Your task to perform on an android device: Open Reddit.com Image 0: 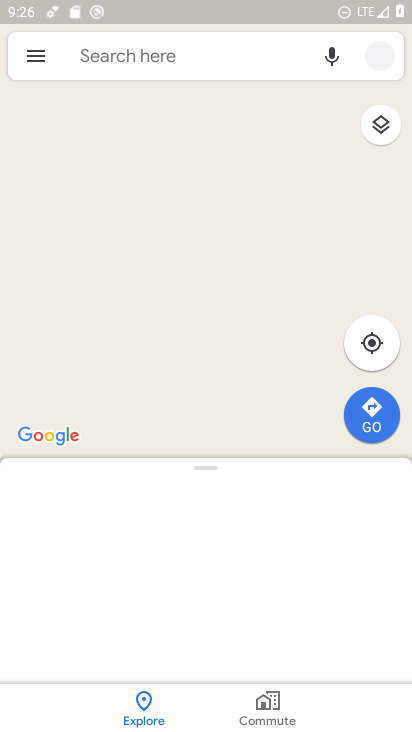
Step 0: press home button
Your task to perform on an android device: Open Reddit.com Image 1: 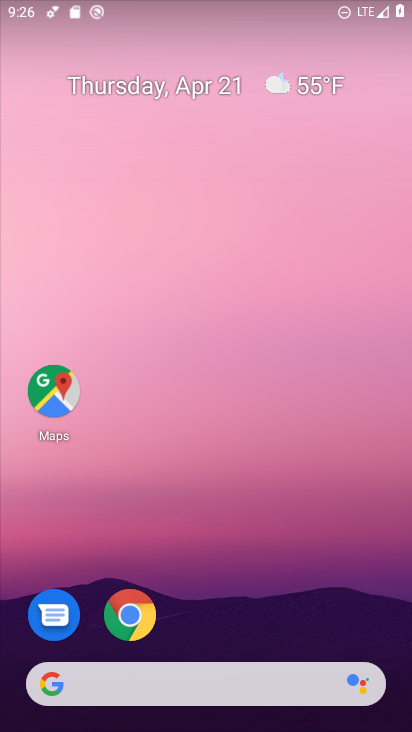
Step 1: click (135, 626)
Your task to perform on an android device: Open Reddit.com Image 2: 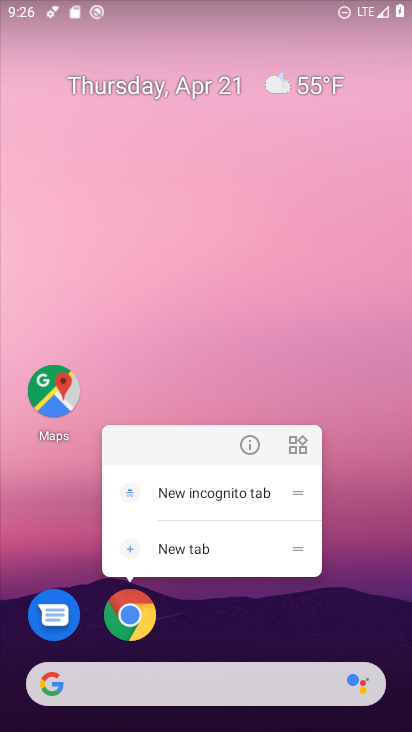
Step 2: click (135, 625)
Your task to perform on an android device: Open Reddit.com Image 3: 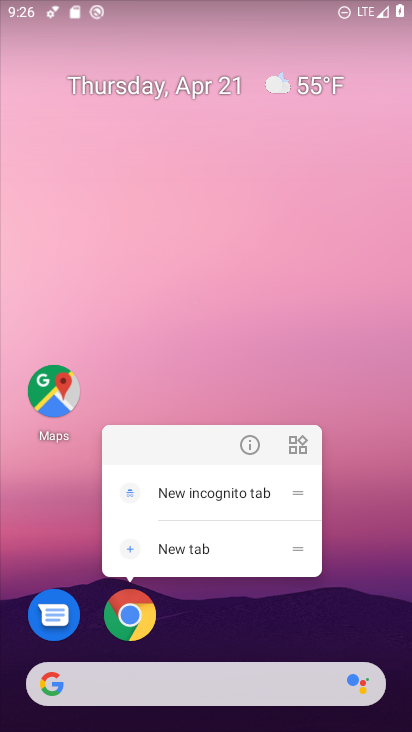
Step 3: click (135, 625)
Your task to perform on an android device: Open Reddit.com Image 4: 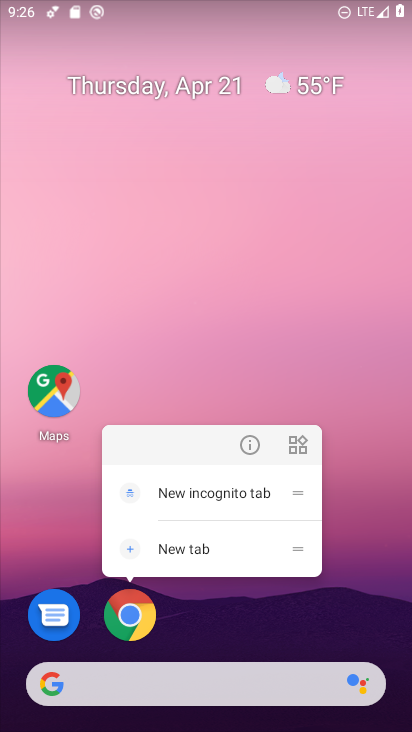
Step 4: click (135, 625)
Your task to perform on an android device: Open Reddit.com Image 5: 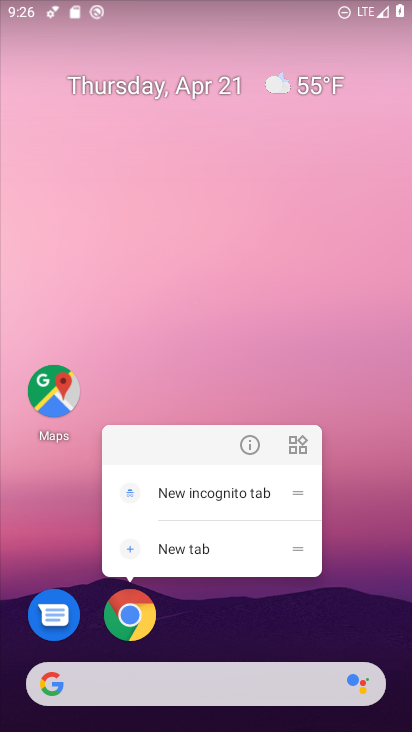
Step 5: click (135, 625)
Your task to perform on an android device: Open Reddit.com Image 6: 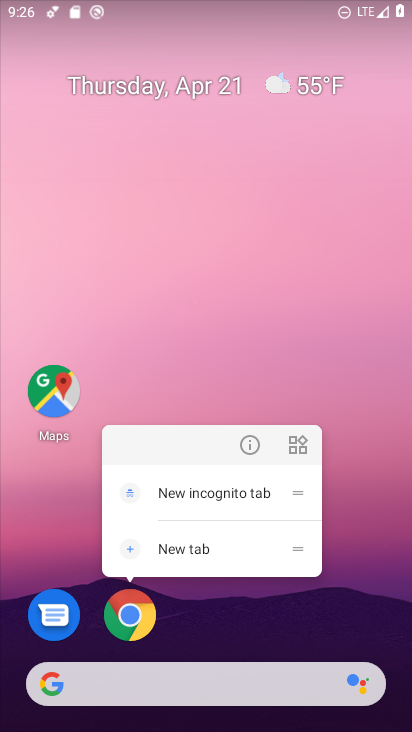
Step 6: click (135, 625)
Your task to perform on an android device: Open Reddit.com Image 7: 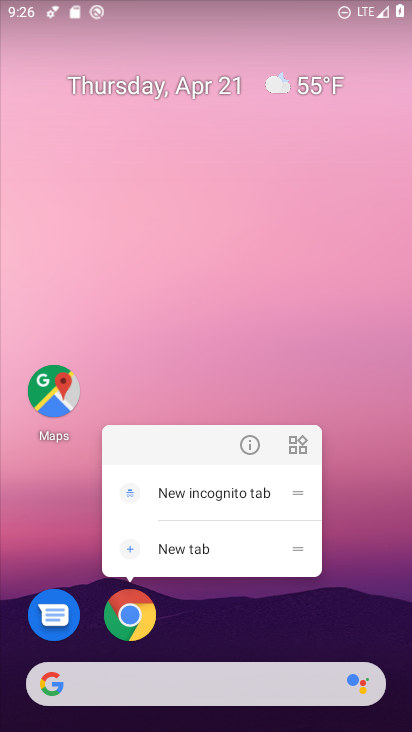
Step 7: click (135, 625)
Your task to perform on an android device: Open Reddit.com Image 8: 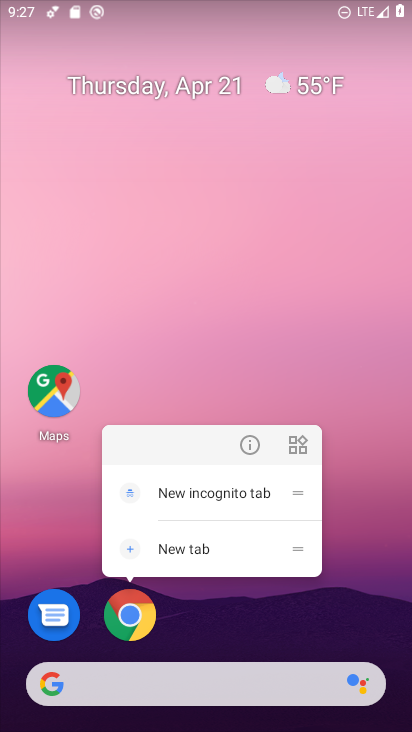
Step 8: click (135, 625)
Your task to perform on an android device: Open Reddit.com Image 9: 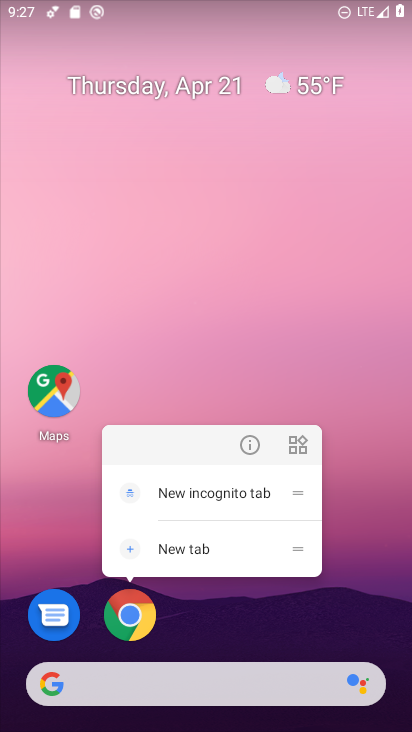
Step 9: click (126, 607)
Your task to perform on an android device: Open Reddit.com Image 10: 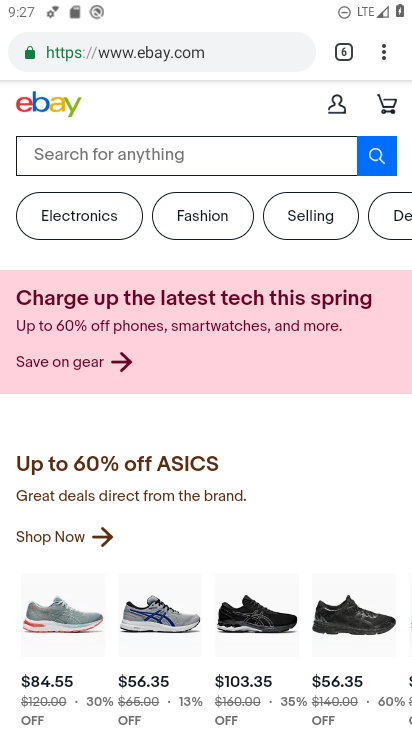
Step 10: drag from (385, 52) to (183, 111)
Your task to perform on an android device: Open Reddit.com Image 11: 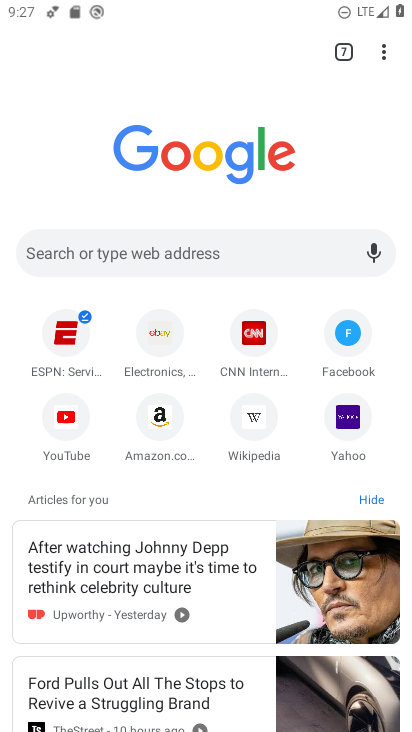
Step 11: click (141, 256)
Your task to perform on an android device: Open Reddit.com Image 12: 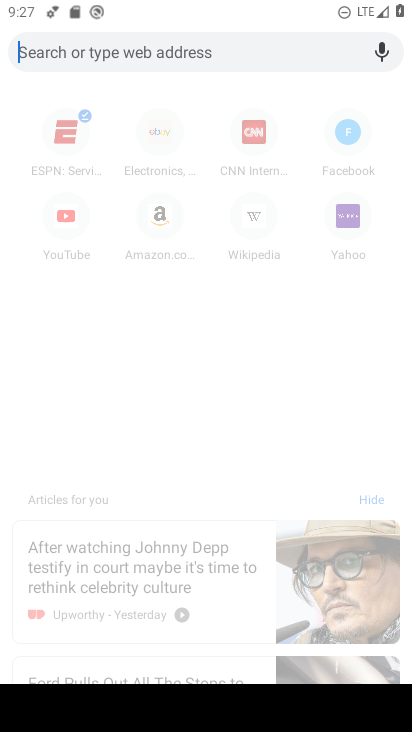
Step 12: type "reddit.com"
Your task to perform on an android device: Open Reddit.com Image 13: 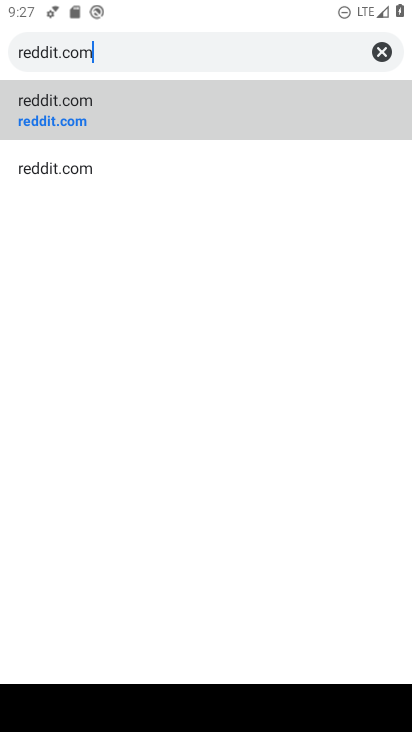
Step 13: click (39, 128)
Your task to perform on an android device: Open Reddit.com Image 14: 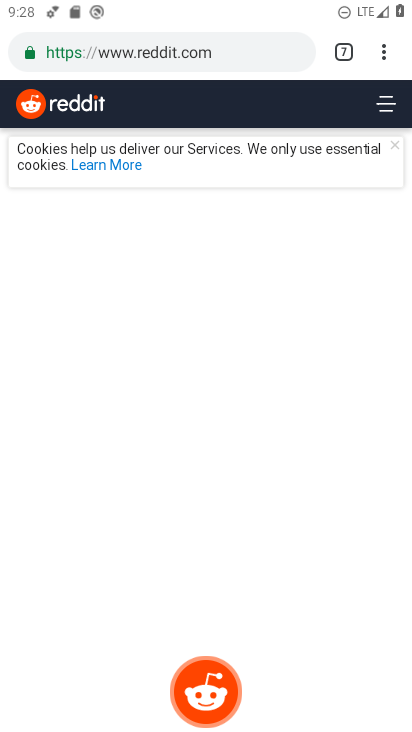
Step 14: task complete